Your task to perform on an android device: turn on javascript in the chrome app Image 0: 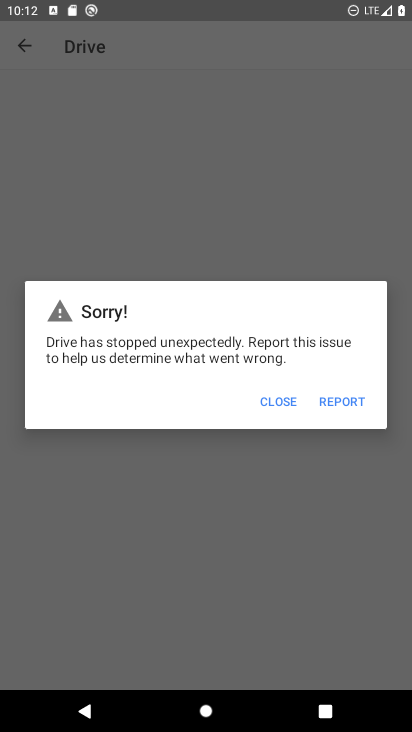
Step 0: press home button
Your task to perform on an android device: turn on javascript in the chrome app Image 1: 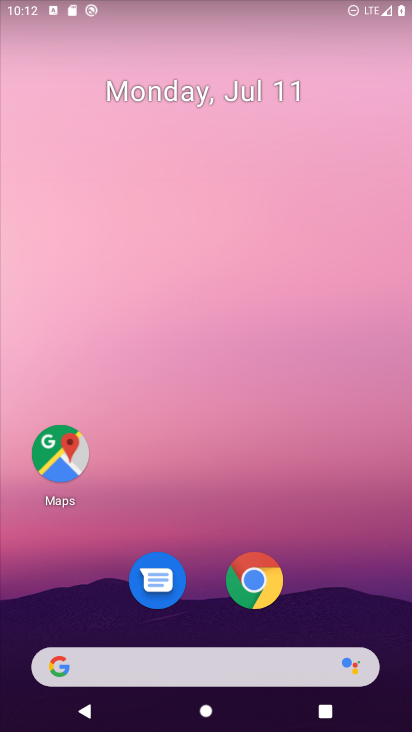
Step 1: click (259, 582)
Your task to perform on an android device: turn on javascript in the chrome app Image 2: 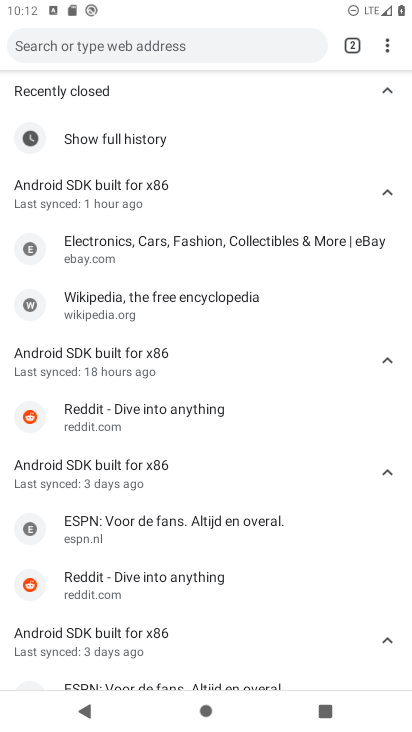
Step 2: click (388, 42)
Your task to perform on an android device: turn on javascript in the chrome app Image 3: 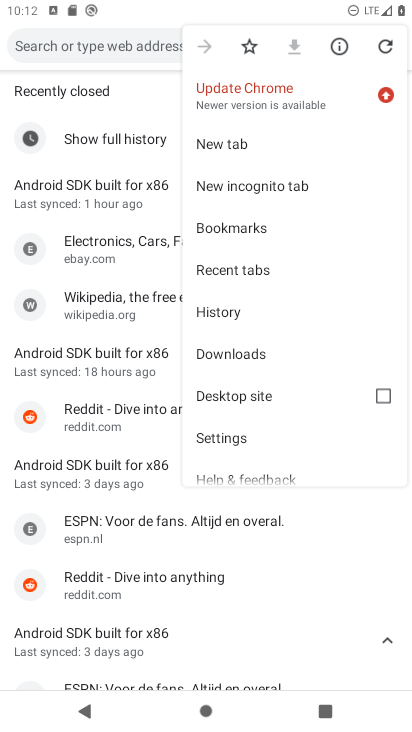
Step 3: click (238, 435)
Your task to perform on an android device: turn on javascript in the chrome app Image 4: 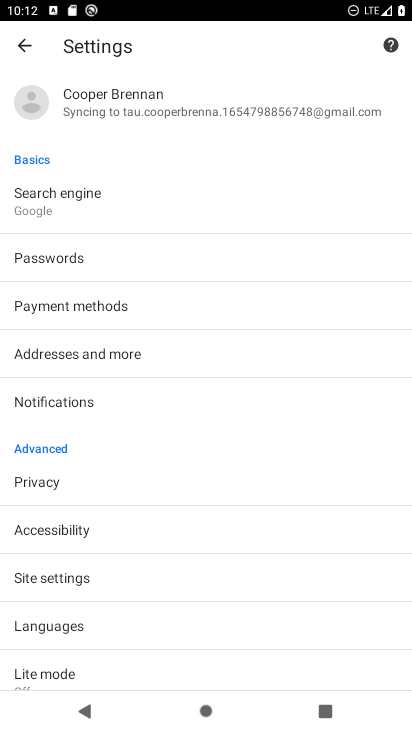
Step 4: click (123, 568)
Your task to perform on an android device: turn on javascript in the chrome app Image 5: 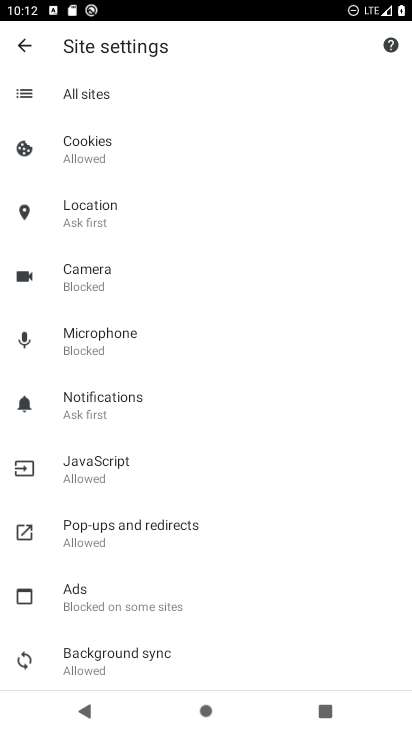
Step 5: click (128, 470)
Your task to perform on an android device: turn on javascript in the chrome app Image 6: 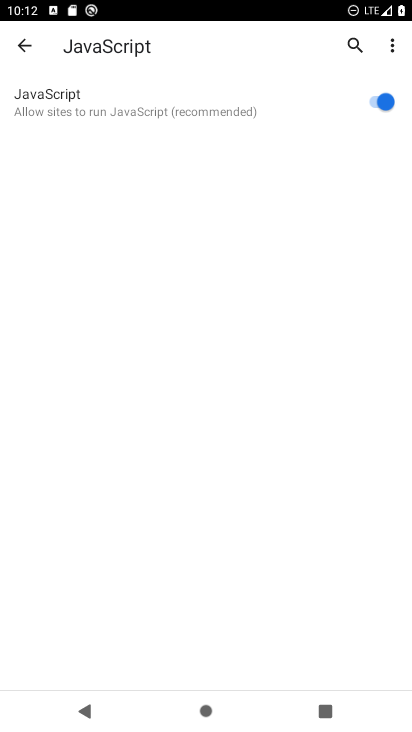
Step 6: task complete